Your task to perform on an android device: turn on data saver in the chrome app Image 0: 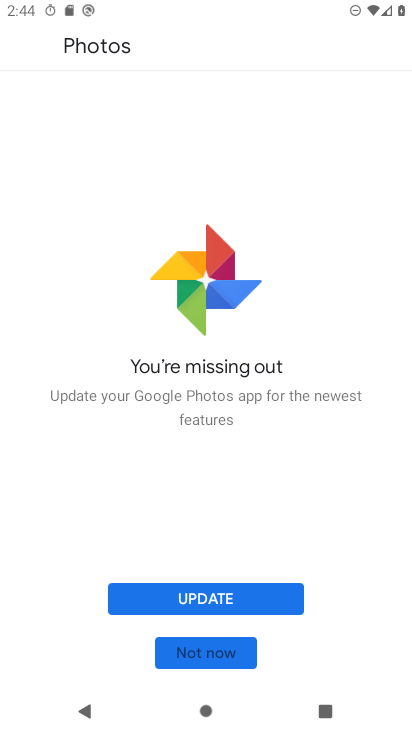
Step 0: press home button
Your task to perform on an android device: turn on data saver in the chrome app Image 1: 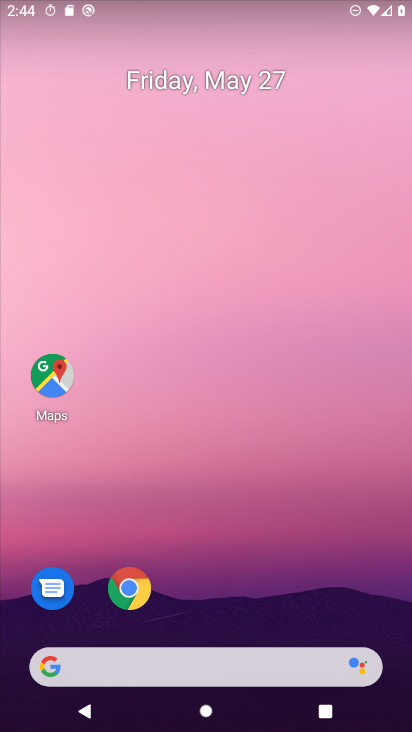
Step 1: click (135, 590)
Your task to perform on an android device: turn on data saver in the chrome app Image 2: 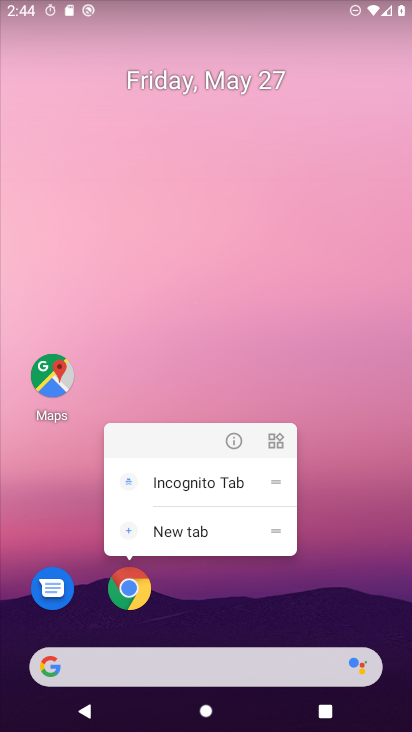
Step 2: click (133, 589)
Your task to perform on an android device: turn on data saver in the chrome app Image 3: 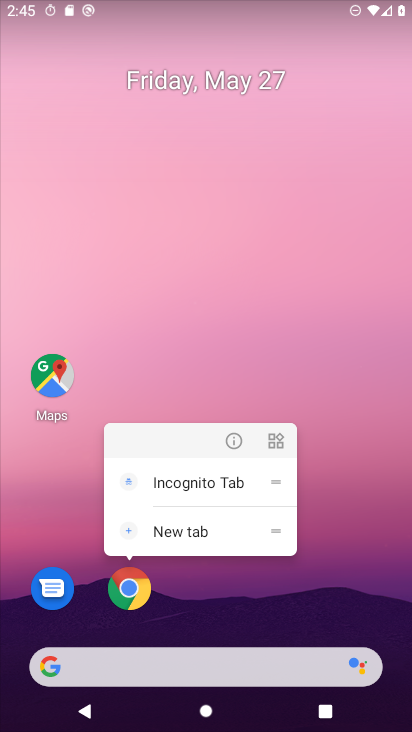
Step 3: click (129, 594)
Your task to perform on an android device: turn on data saver in the chrome app Image 4: 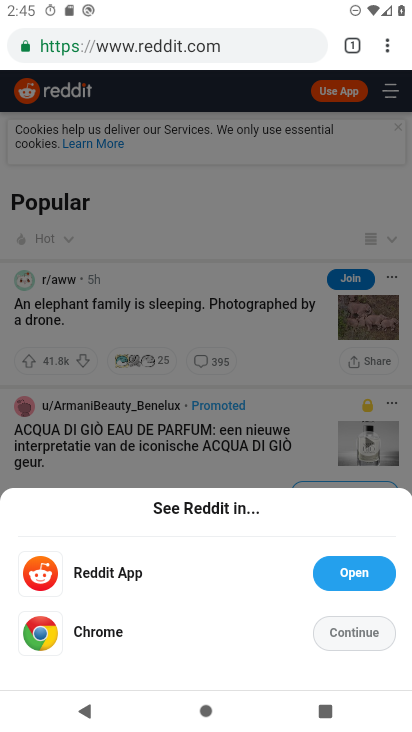
Step 4: click (386, 50)
Your task to perform on an android device: turn on data saver in the chrome app Image 5: 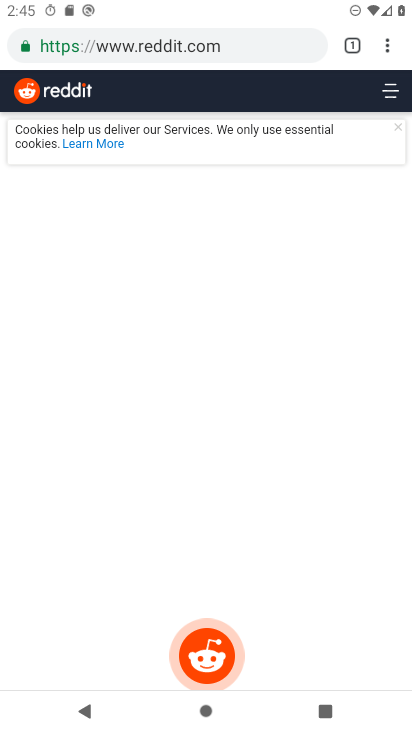
Step 5: click (386, 49)
Your task to perform on an android device: turn on data saver in the chrome app Image 6: 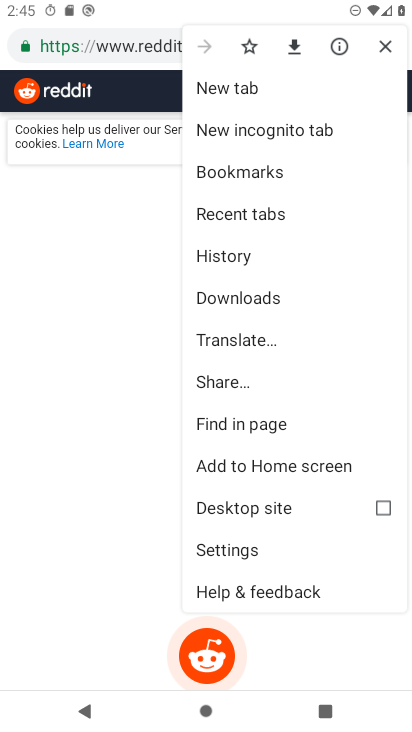
Step 6: click (216, 553)
Your task to perform on an android device: turn on data saver in the chrome app Image 7: 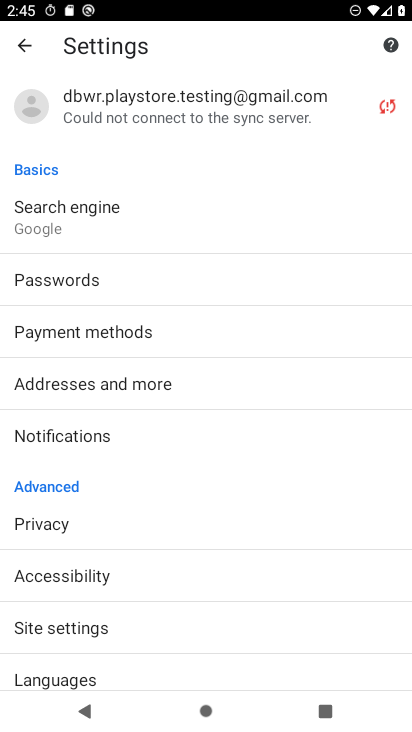
Step 7: drag from (172, 639) to (133, 381)
Your task to perform on an android device: turn on data saver in the chrome app Image 8: 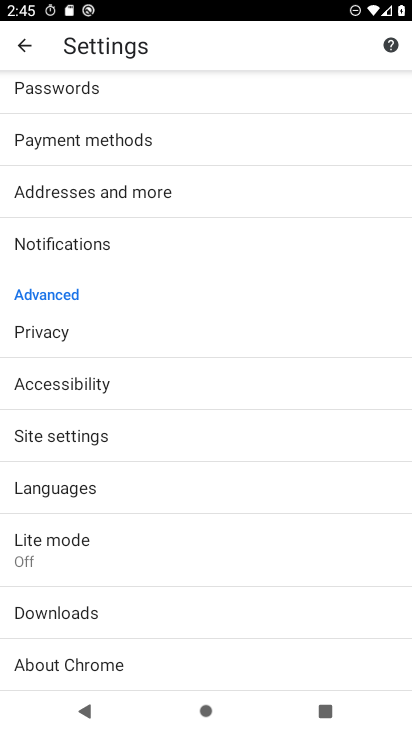
Step 8: click (37, 554)
Your task to perform on an android device: turn on data saver in the chrome app Image 9: 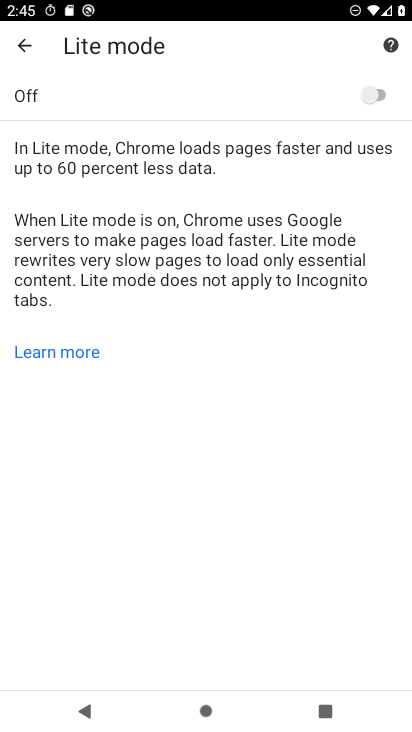
Step 9: click (375, 97)
Your task to perform on an android device: turn on data saver in the chrome app Image 10: 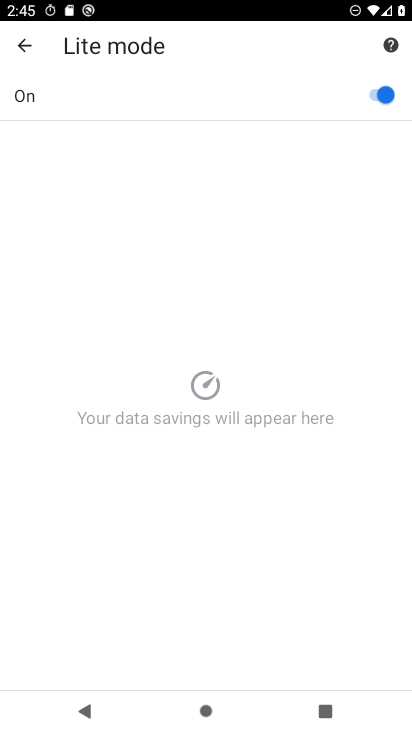
Step 10: task complete